Your task to perform on an android device: change timer sound Image 0: 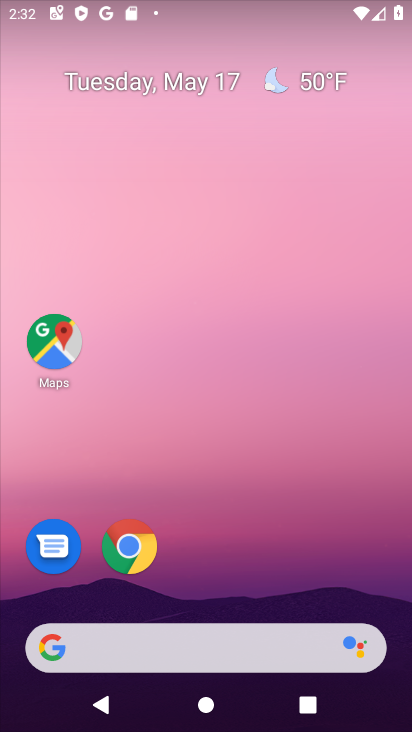
Step 0: drag from (224, 566) to (369, 6)
Your task to perform on an android device: change timer sound Image 1: 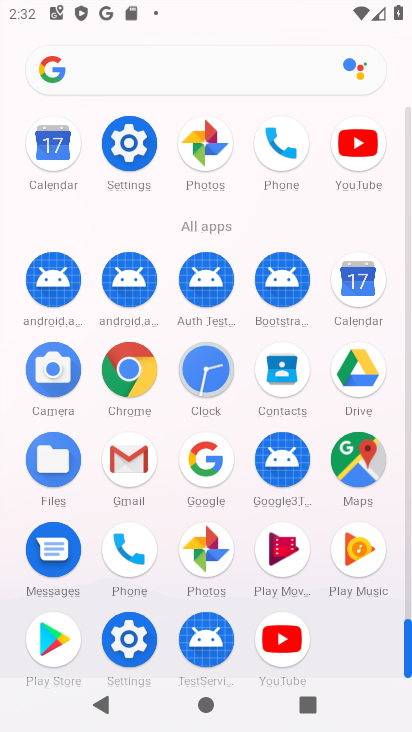
Step 1: click (197, 382)
Your task to perform on an android device: change timer sound Image 2: 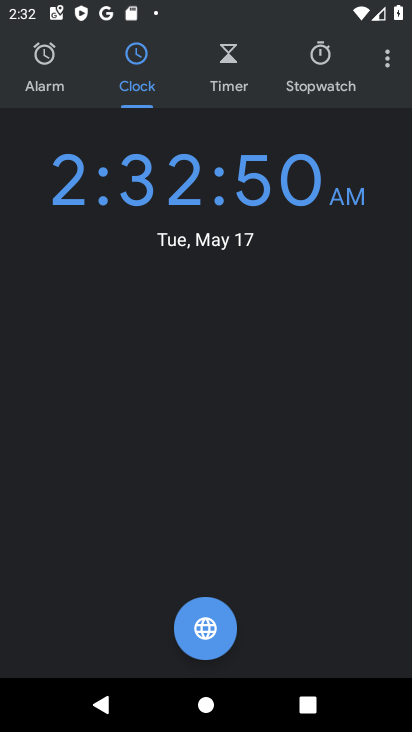
Step 2: click (383, 68)
Your task to perform on an android device: change timer sound Image 3: 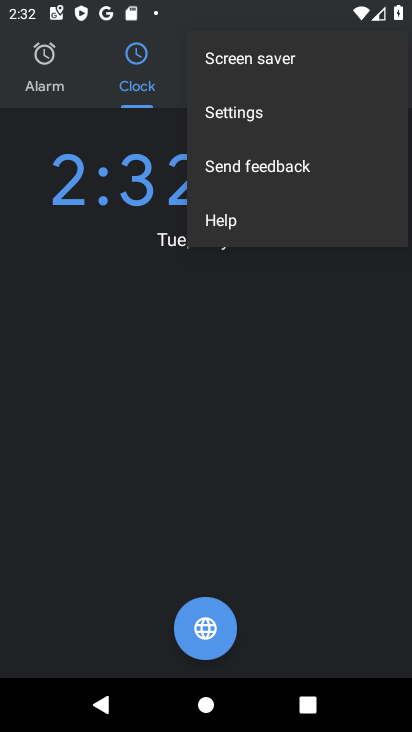
Step 3: click (228, 122)
Your task to perform on an android device: change timer sound Image 4: 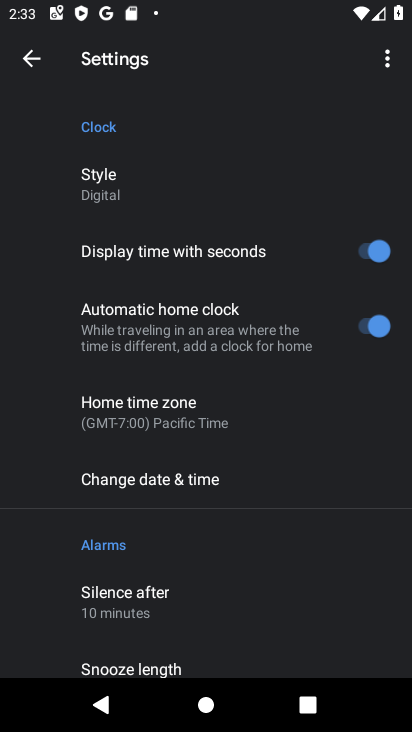
Step 4: drag from (141, 579) to (197, 243)
Your task to perform on an android device: change timer sound Image 5: 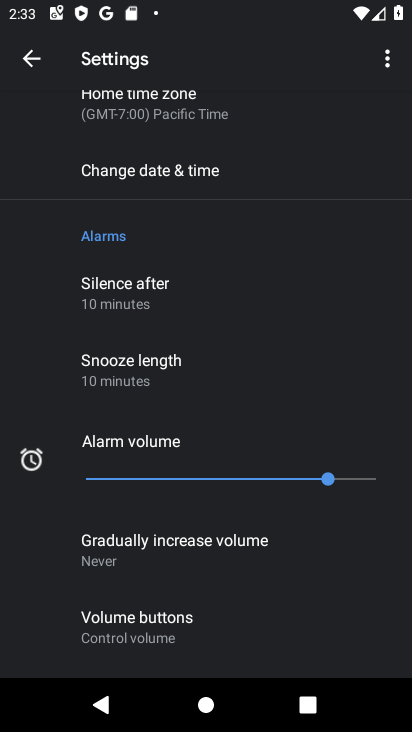
Step 5: drag from (168, 475) to (198, 271)
Your task to perform on an android device: change timer sound Image 6: 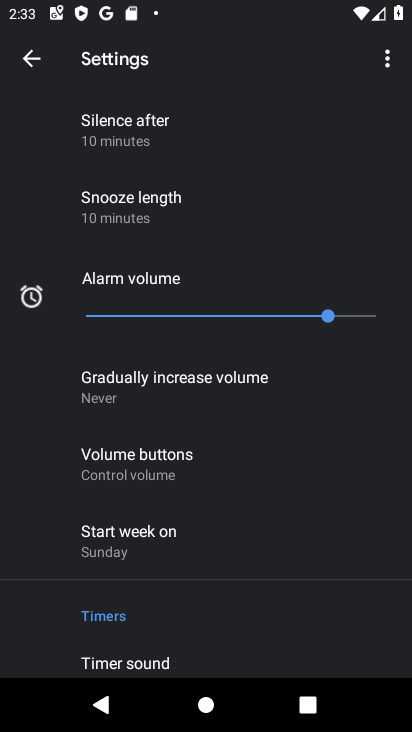
Step 6: drag from (134, 563) to (176, 297)
Your task to perform on an android device: change timer sound Image 7: 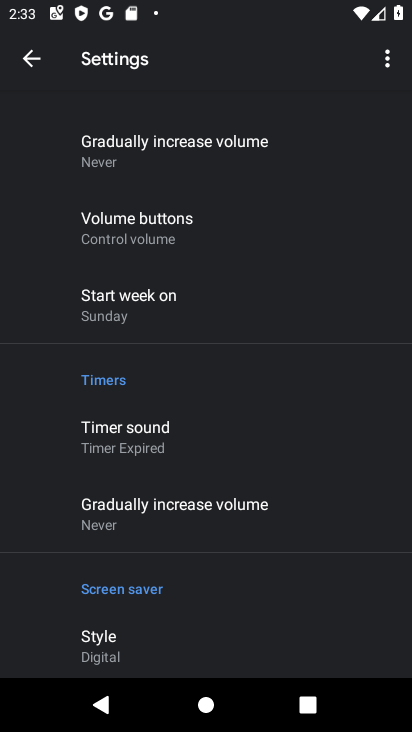
Step 7: click (144, 435)
Your task to perform on an android device: change timer sound Image 8: 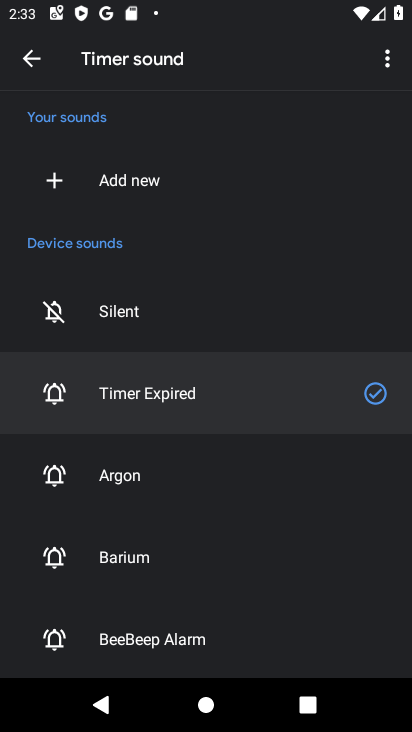
Step 8: click (135, 487)
Your task to perform on an android device: change timer sound Image 9: 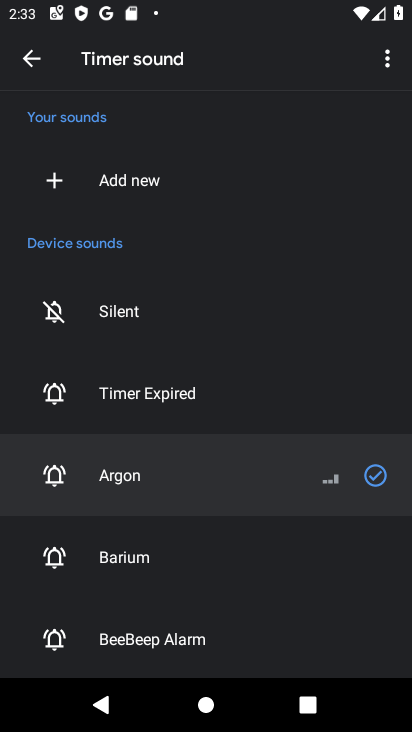
Step 9: task complete